Your task to perform on an android device: toggle sleep mode Image 0: 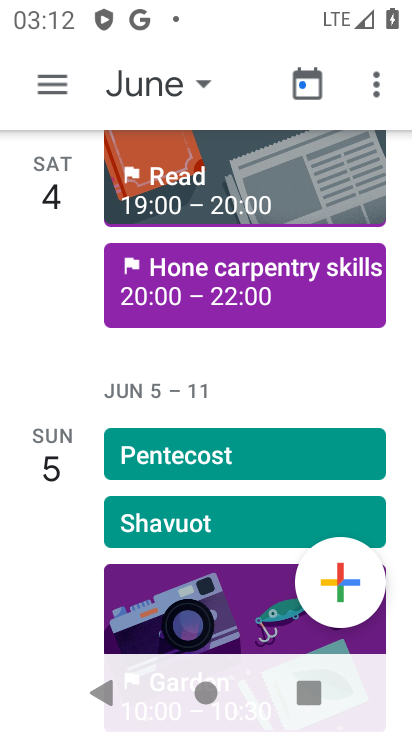
Step 0: press back button
Your task to perform on an android device: toggle sleep mode Image 1: 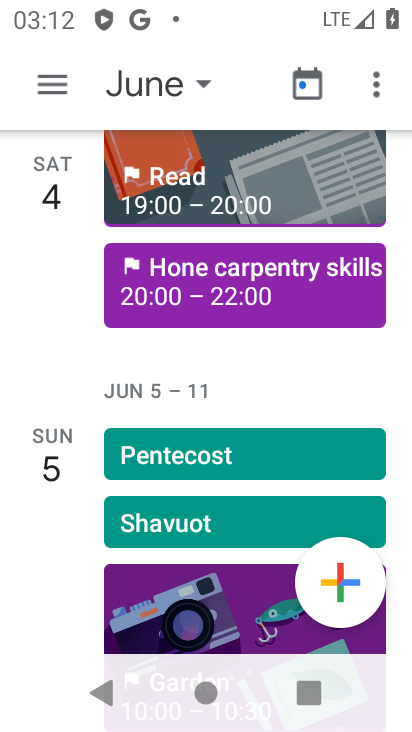
Step 1: task complete